Your task to perform on an android device: Open calendar and show me the fourth week of next month Image 0: 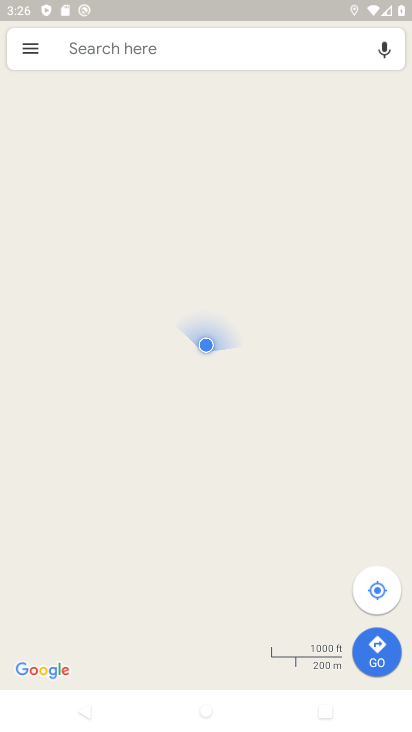
Step 0: press home button
Your task to perform on an android device: Open calendar and show me the fourth week of next month Image 1: 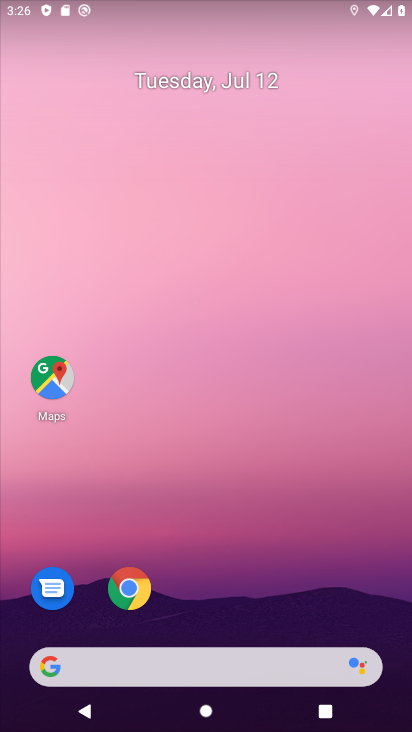
Step 1: drag from (218, 631) to (329, 46)
Your task to perform on an android device: Open calendar and show me the fourth week of next month Image 2: 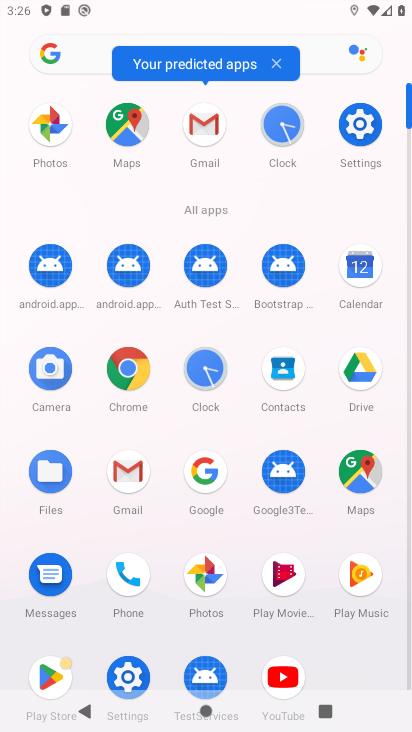
Step 2: click (361, 283)
Your task to perform on an android device: Open calendar and show me the fourth week of next month Image 3: 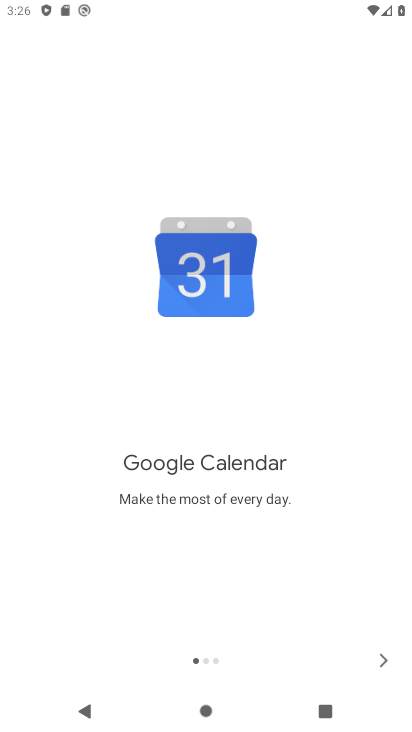
Step 3: click (391, 657)
Your task to perform on an android device: Open calendar and show me the fourth week of next month Image 4: 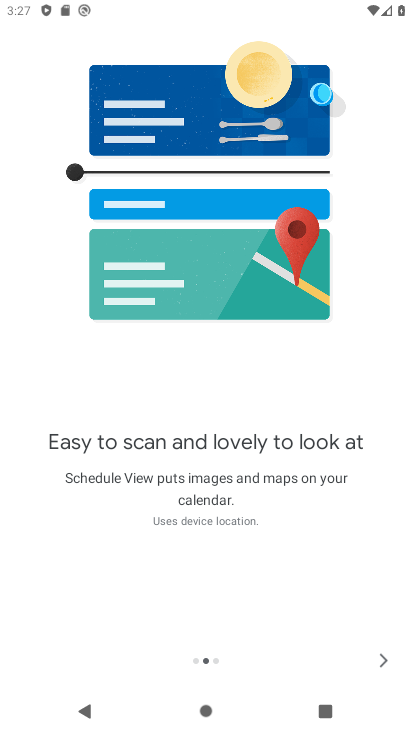
Step 4: click (390, 657)
Your task to perform on an android device: Open calendar and show me the fourth week of next month Image 5: 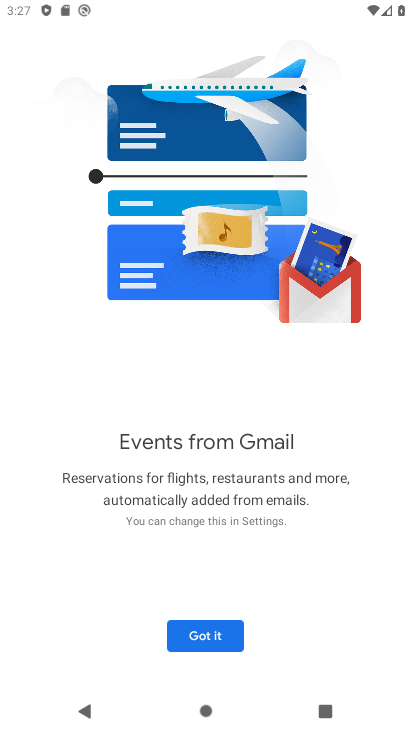
Step 5: click (236, 631)
Your task to perform on an android device: Open calendar and show me the fourth week of next month Image 6: 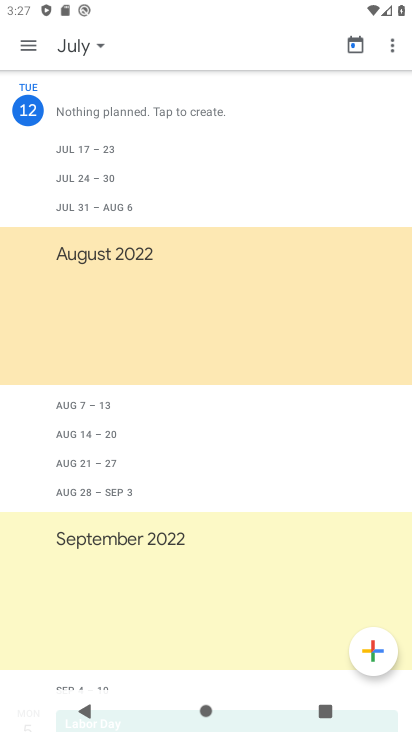
Step 6: click (72, 58)
Your task to perform on an android device: Open calendar and show me the fourth week of next month Image 7: 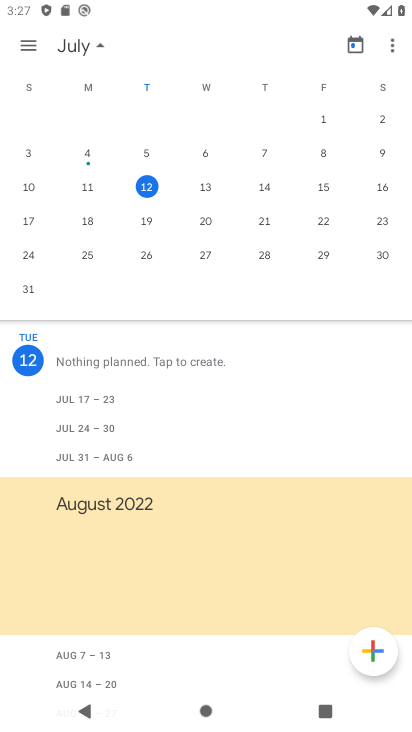
Step 7: drag from (344, 280) to (15, 225)
Your task to perform on an android device: Open calendar and show me the fourth week of next month Image 8: 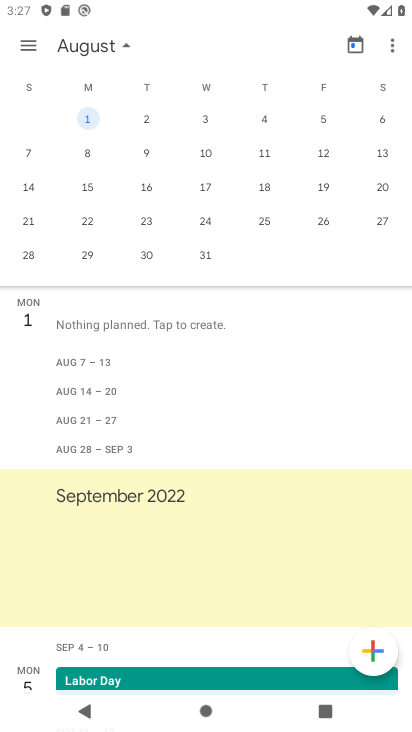
Step 8: click (30, 256)
Your task to perform on an android device: Open calendar and show me the fourth week of next month Image 9: 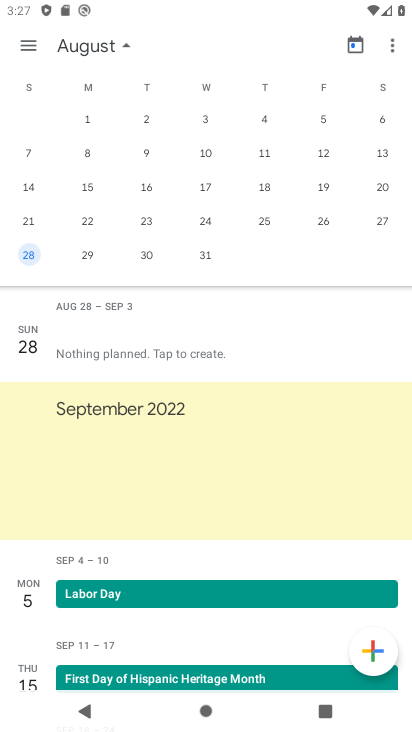
Step 9: click (28, 49)
Your task to perform on an android device: Open calendar and show me the fourth week of next month Image 10: 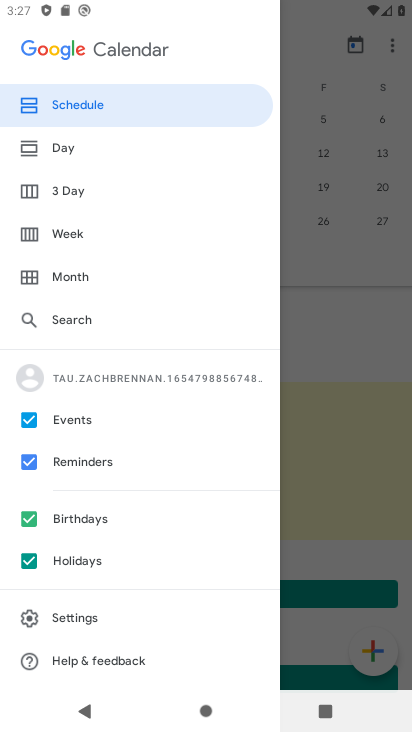
Step 10: click (90, 230)
Your task to perform on an android device: Open calendar and show me the fourth week of next month Image 11: 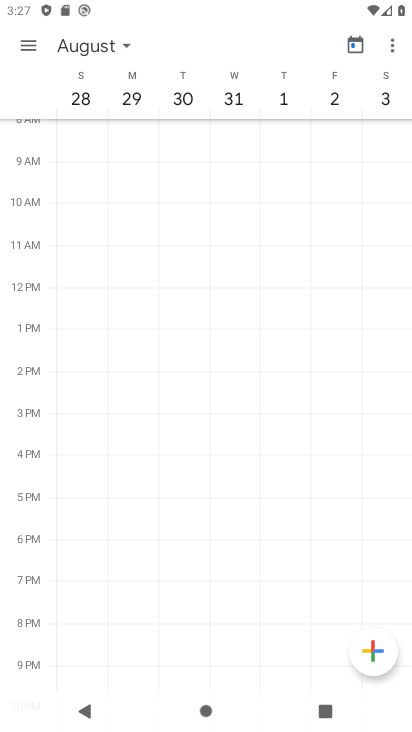
Step 11: task complete